Your task to perform on an android device: change text size in settings app Image 0: 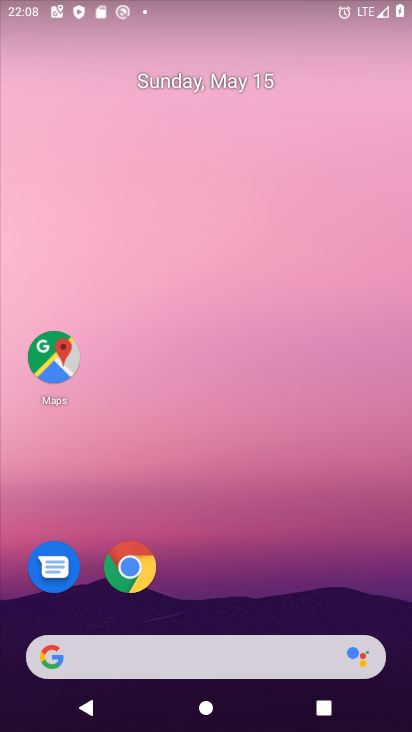
Step 0: drag from (243, 670) to (243, 102)
Your task to perform on an android device: change text size in settings app Image 1: 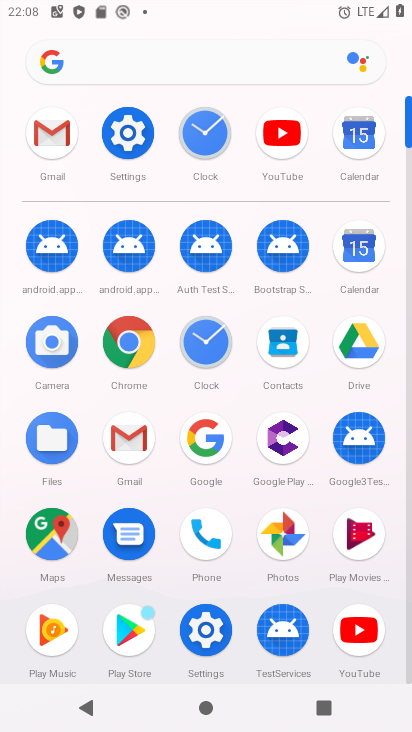
Step 1: click (126, 132)
Your task to perform on an android device: change text size in settings app Image 2: 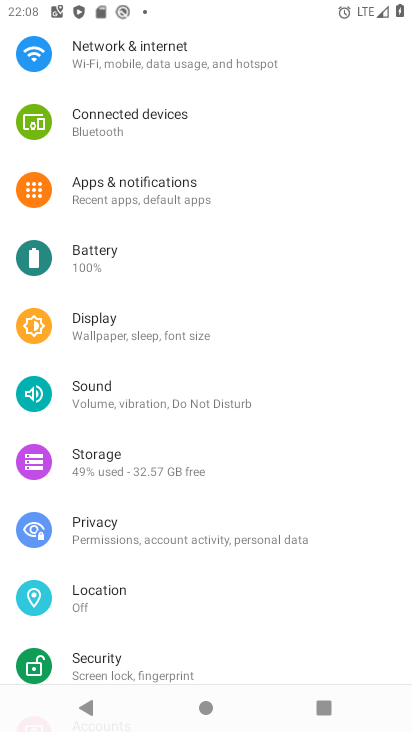
Step 2: click (198, 319)
Your task to perform on an android device: change text size in settings app Image 3: 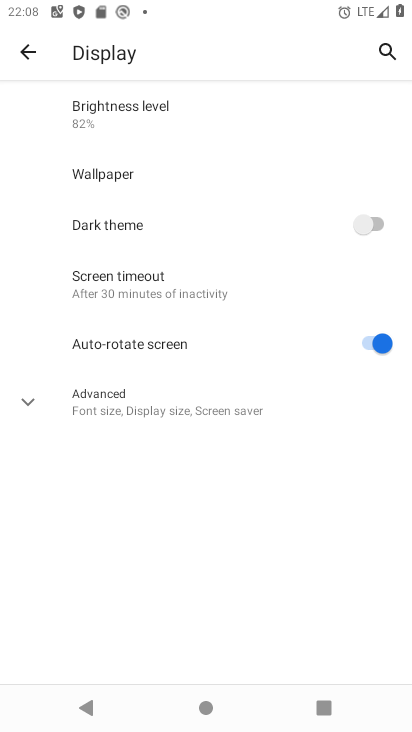
Step 3: click (197, 402)
Your task to perform on an android device: change text size in settings app Image 4: 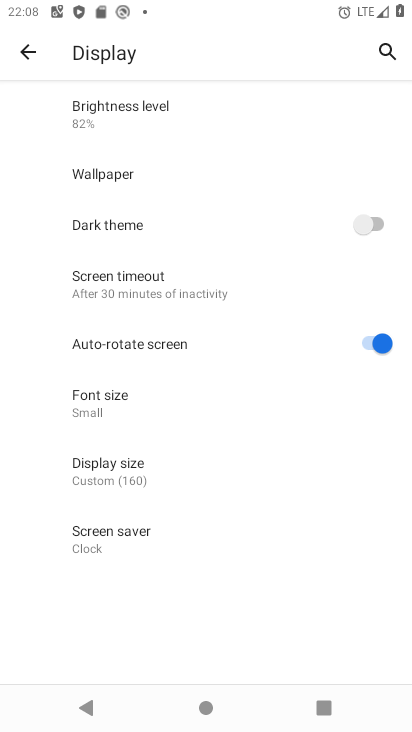
Step 4: click (141, 395)
Your task to perform on an android device: change text size in settings app Image 5: 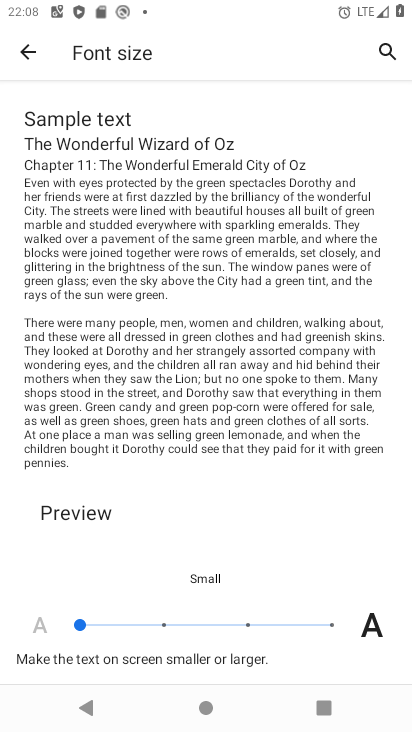
Step 5: click (151, 625)
Your task to perform on an android device: change text size in settings app Image 6: 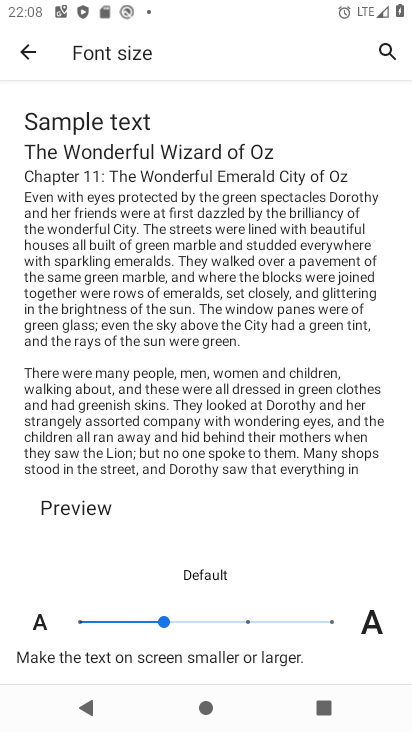
Step 6: task complete